Your task to perform on an android device: turn off notifications settings in the gmail app Image 0: 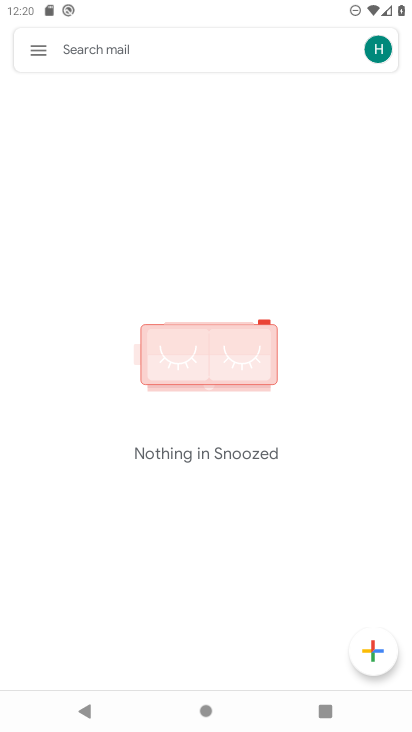
Step 0: press home button
Your task to perform on an android device: turn off notifications settings in the gmail app Image 1: 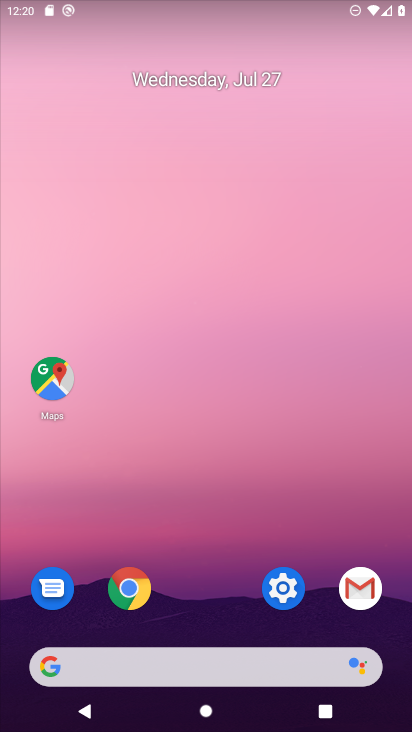
Step 1: click (363, 581)
Your task to perform on an android device: turn off notifications settings in the gmail app Image 2: 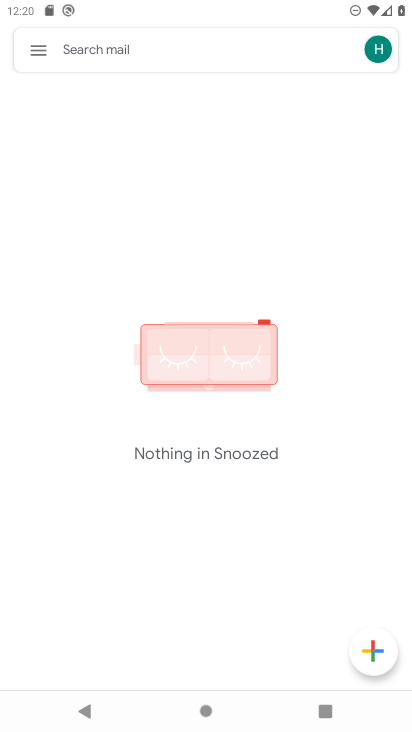
Step 2: click (31, 54)
Your task to perform on an android device: turn off notifications settings in the gmail app Image 3: 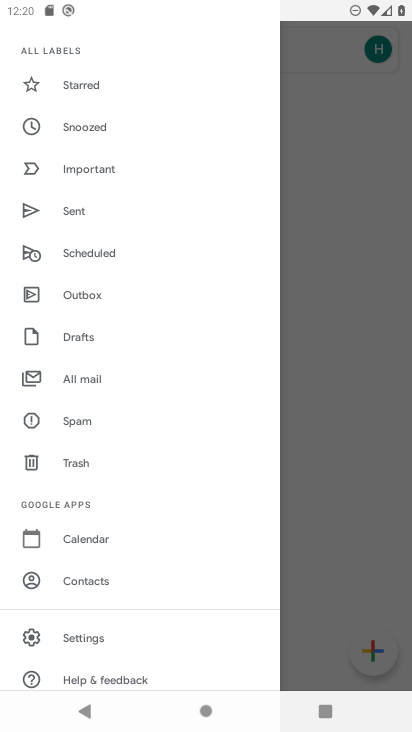
Step 3: click (79, 651)
Your task to perform on an android device: turn off notifications settings in the gmail app Image 4: 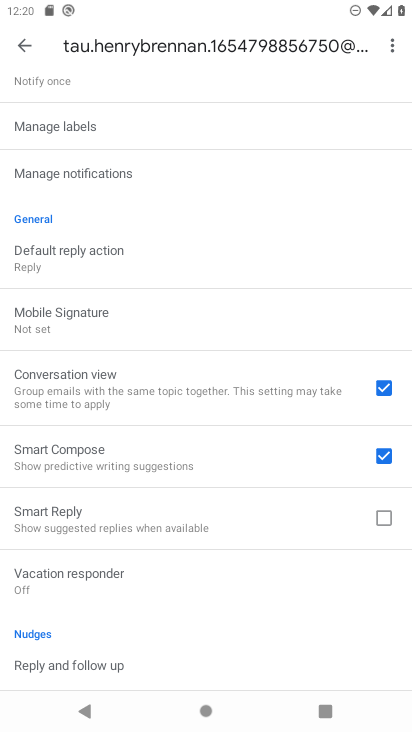
Step 4: drag from (104, 182) to (114, 307)
Your task to perform on an android device: turn off notifications settings in the gmail app Image 5: 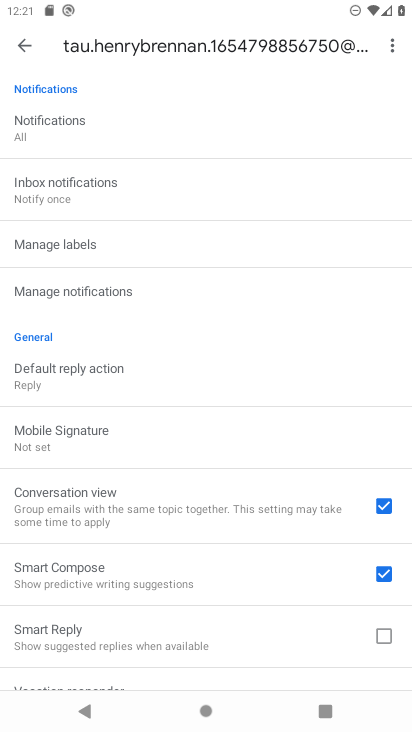
Step 5: click (73, 194)
Your task to perform on an android device: turn off notifications settings in the gmail app Image 6: 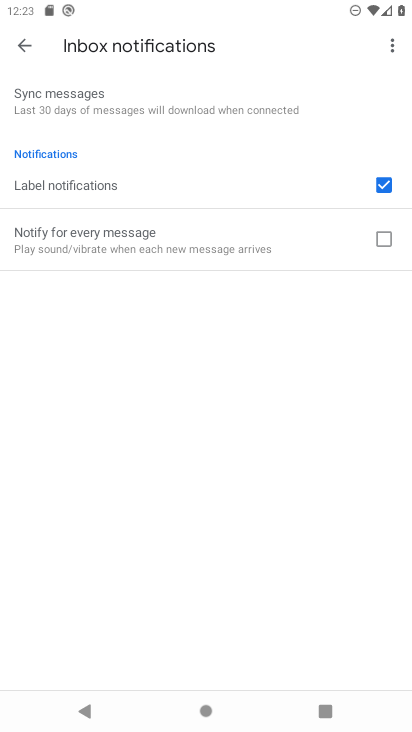
Step 6: task complete